Your task to perform on an android device: move a message to another label in the gmail app Image 0: 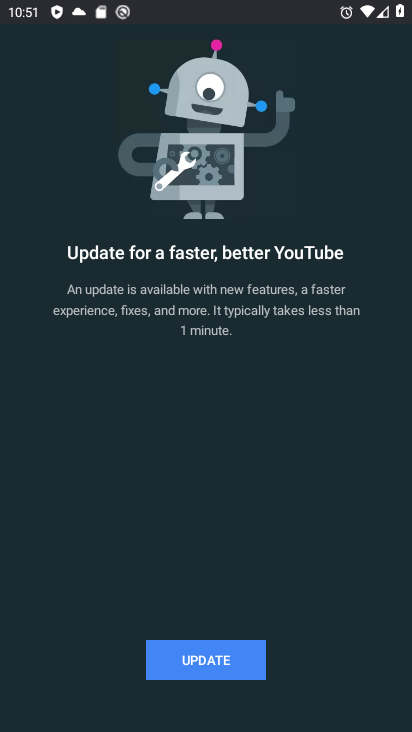
Step 0: press home button
Your task to perform on an android device: move a message to another label in the gmail app Image 1: 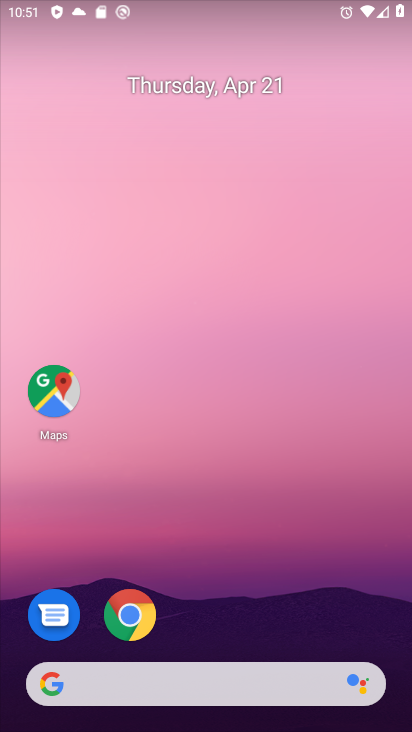
Step 1: drag from (249, 525) to (287, 92)
Your task to perform on an android device: move a message to another label in the gmail app Image 2: 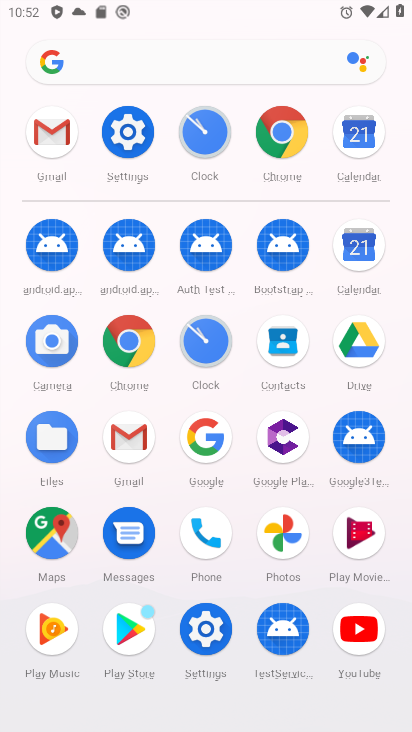
Step 2: click (131, 433)
Your task to perform on an android device: move a message to another label in the gmail app Image 3: 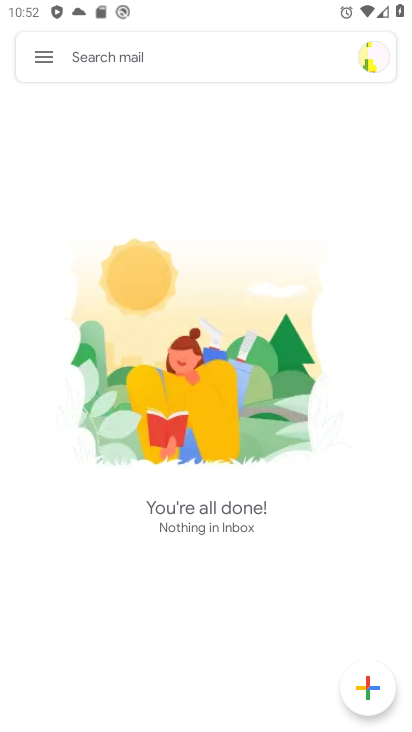
Step 3: click (34, 55)
Your task to perform on an android device: move a message to another label in the gmail app Image 4: 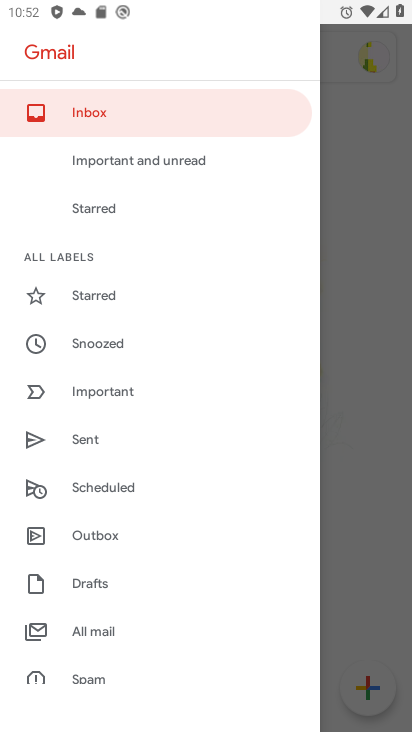
Step 4: click (120, 629)
Your task to perform on an android device: move a message to another label in the gmail app Image 5: 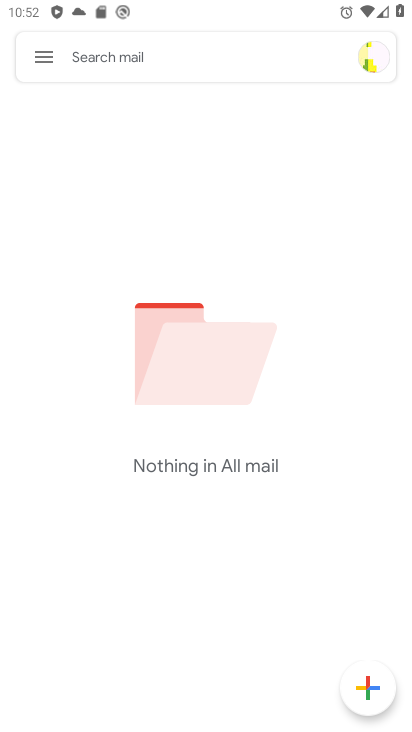
Step 5: task complete